Your task to perform on an android device: find snoozed emails in the gmail app Image 0: 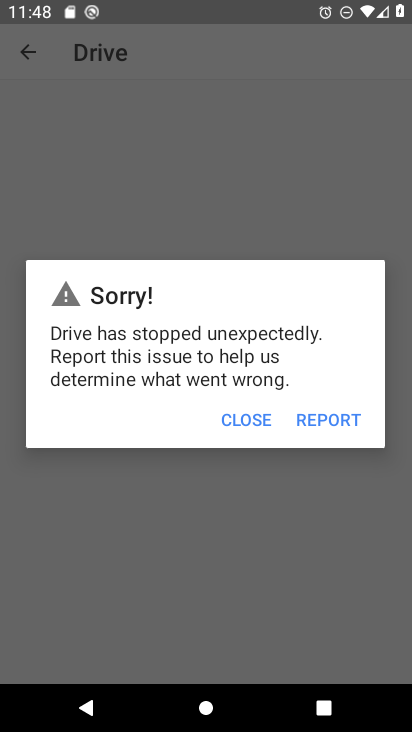
Step 0: click (130, 569)
Your task to perform on an android device: find snoozed emails in the gmail app Image 1: 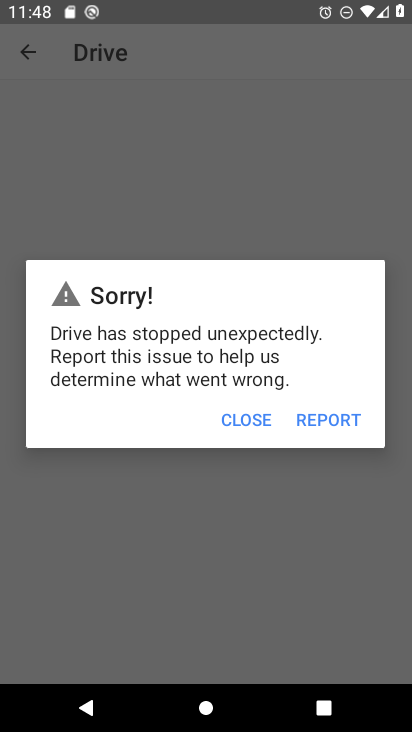
Step 1: press home button
Your task to perform on an android device: find snoozed emails in the gmail app Image 2: 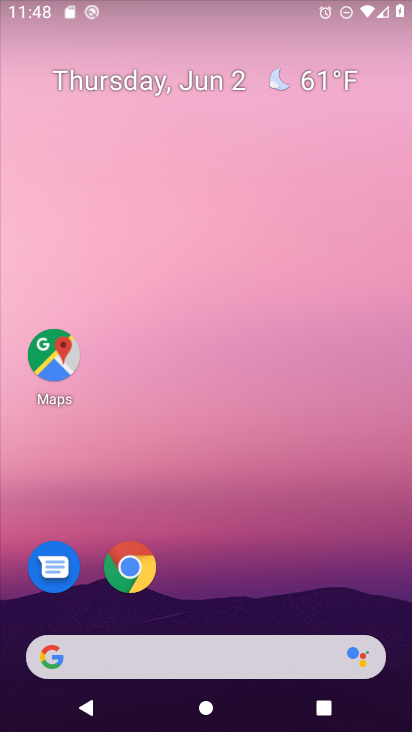
Step 2: drag from (278, 523) to (297, 122)
Your task to perform on an android device: find snoozed emails in the gmail app Image 3: 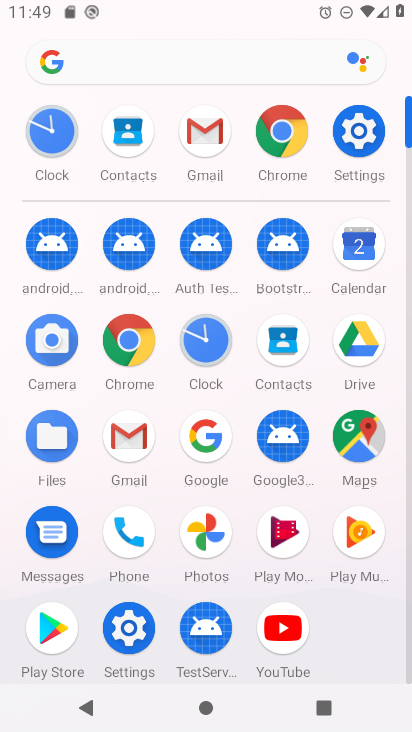
Step 3: click (133, 438)
Your task to perform on an android device: find snoozed emails in the gmail app Image 4: 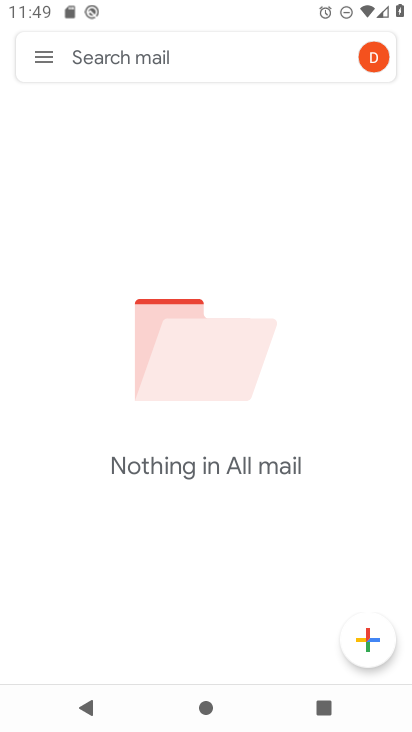
Step 4: click (46, 47)
Your task to perform on an android device: find snoozed emails in the gmail app Image 5: 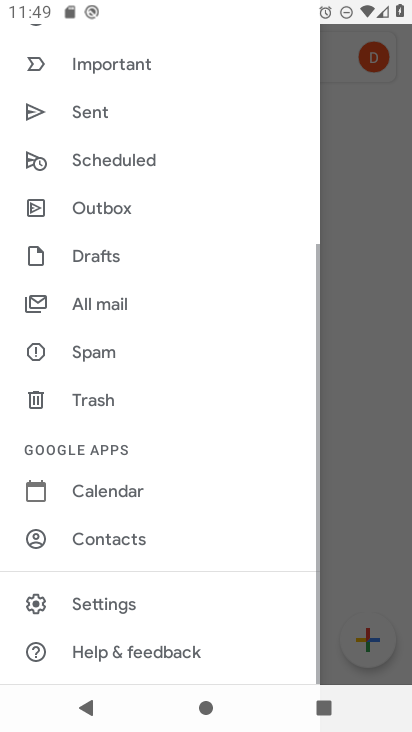
Step 5: drag from (138, 152) to (233, 130)
Your task to perform on an android device: find snoozed emails in the gmail app Image 6: 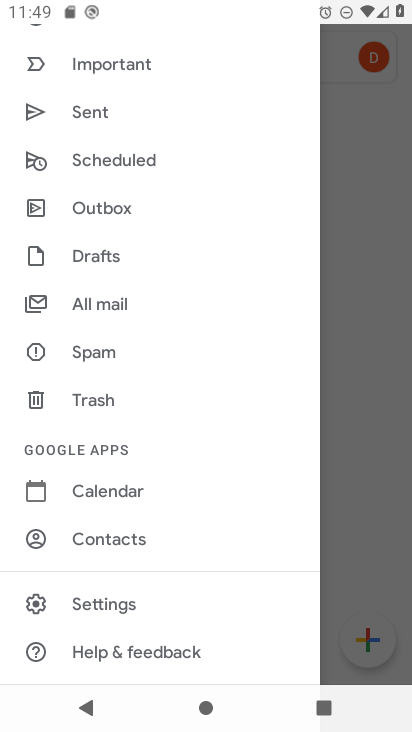
Step 6: drag from (75, 175) to (122, 555)
Your task to perform on an android device: find snoozed emails in the gmail app Image 7: 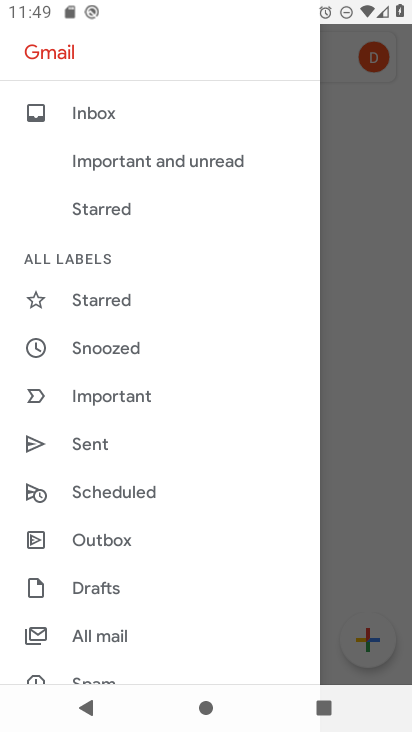
Step 7: click (133, 339)
Your task to perform on an android device: find snoozed emails in the gmail app Image 8: 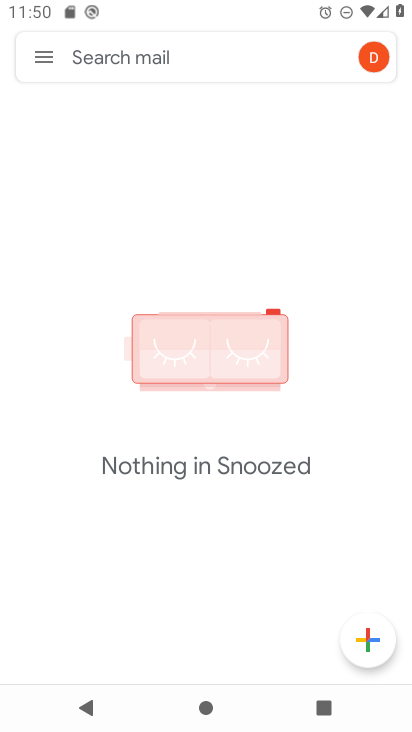
Step 8: task complete